Your task to perform on an android device: Go to privacy settings Image 0: 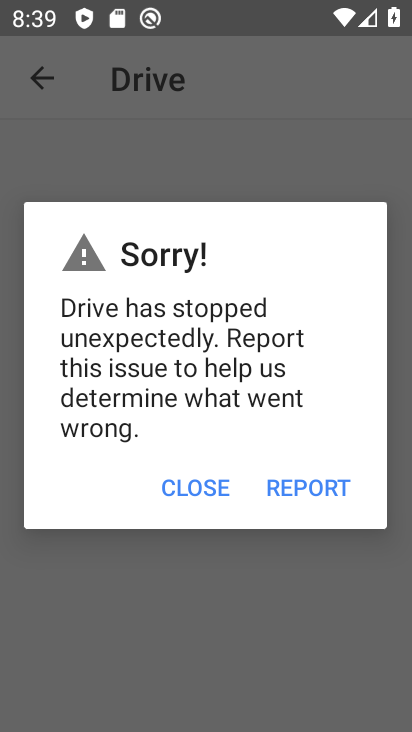
Step 0: press home button
Your task to perform on an android device: Go to privacy settings Image 1: 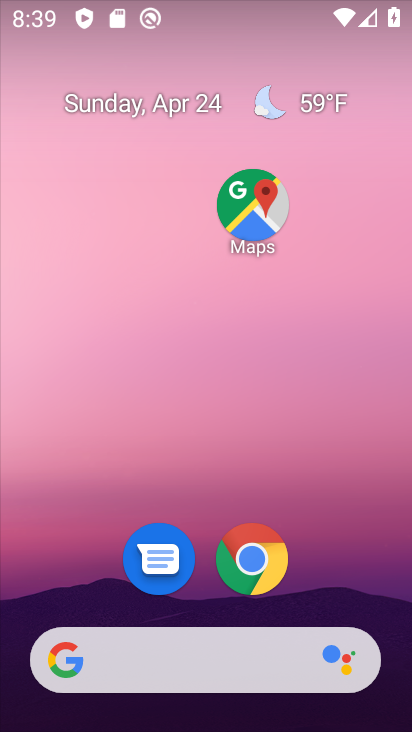
Step 1: drag from (1, 731) to (276, 243)
Your task to perform on an android device: Go to privacy settings Image 2: 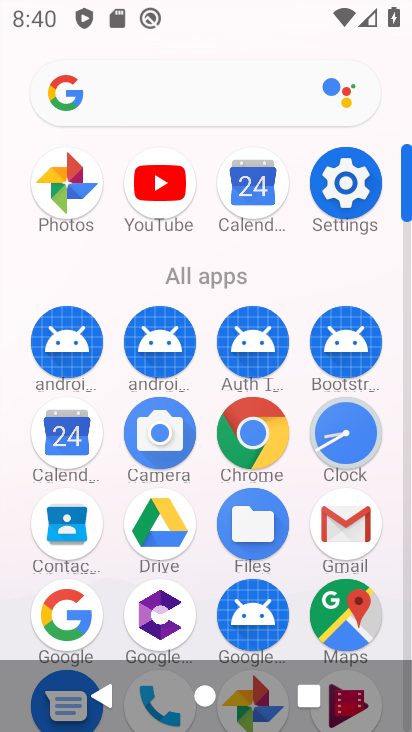
Step 2: click (355, 185)
Your task to perform on an android device: Go to privacy settings Image 3: 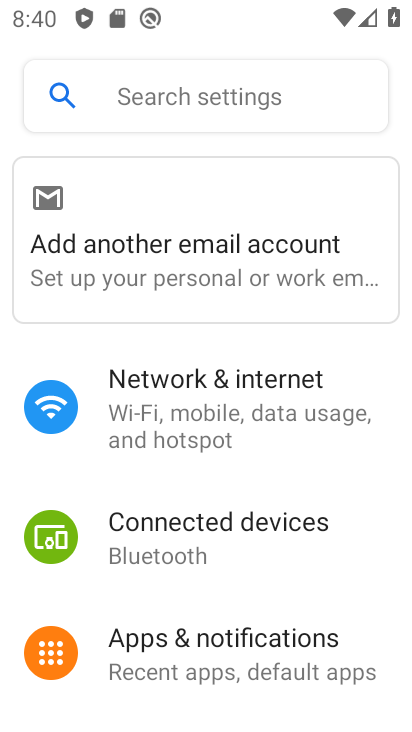
Step 3: drag from (137, 666) to (261, 297)
Your task to perform on an android device: Go to privacy settings Image 4: 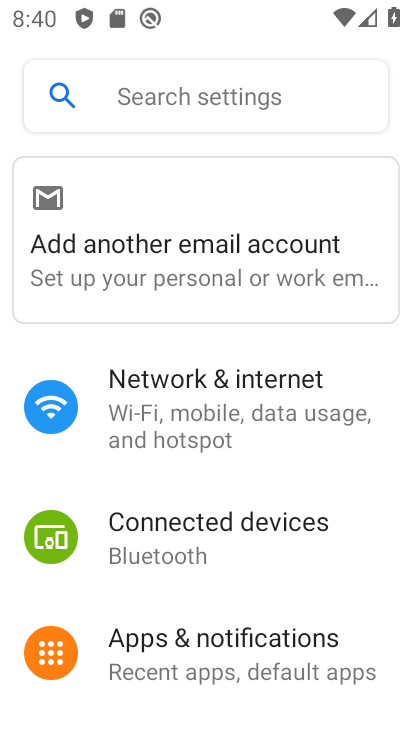
Step 4: drag from (89, 635) to (300, 147)
Your task to perform on an android device: Go to privacy settings Image 5: 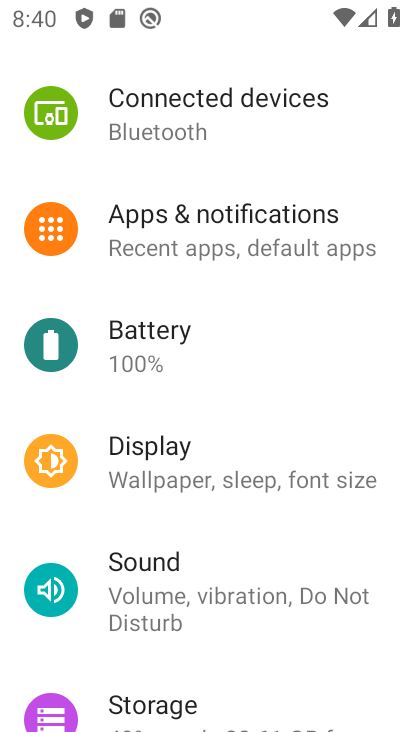
Step 5: drag from (163, 664) to (365, 269)
Your task to perform on an android device: Go to privacy settings Image 6: 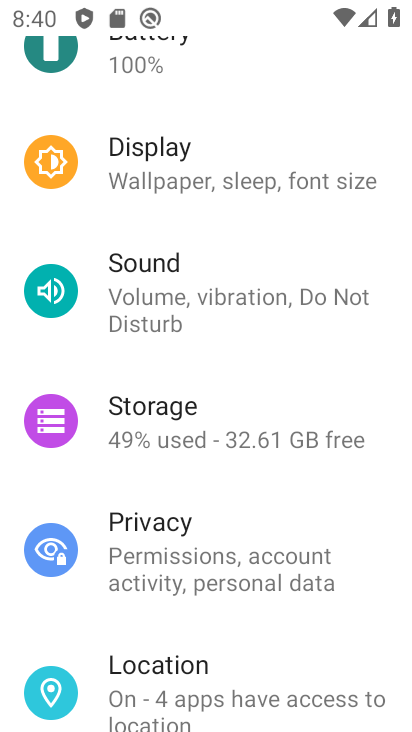
Step 6: click (242, 559)
Your task to perform on an android device: Go to privacy settings Image 7: 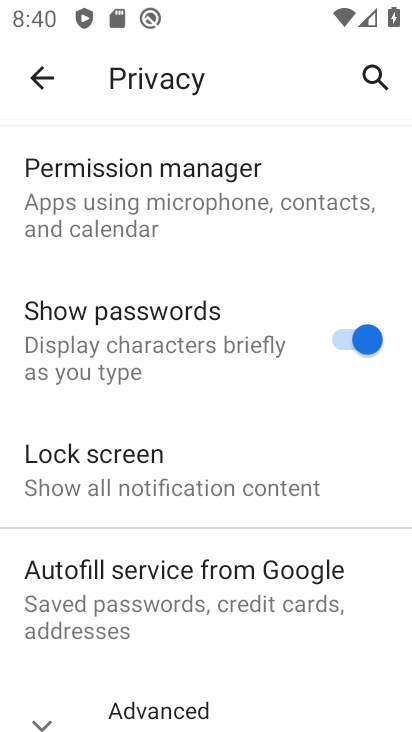
Step 7: task complete